Your task to perform on an android device: change keyboard looks Image 0: 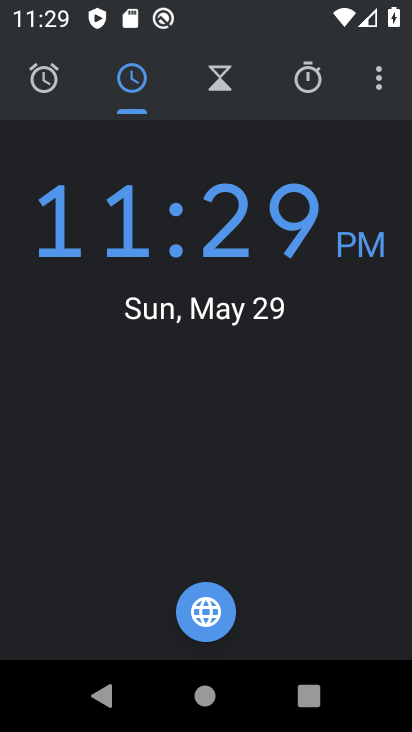
Step 0: press home button
Your task to perform on an android device: change keyboard looks Image 1: 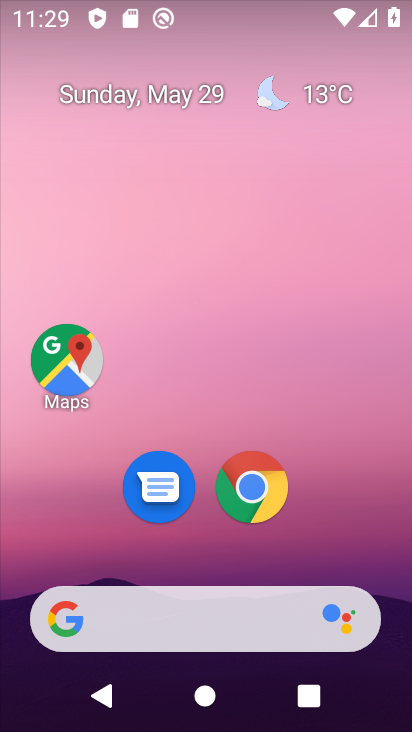
Step 1: drag from (350, 487) to (337, 108)
Your task to perform on an android device: change keyboard looks Image 2: 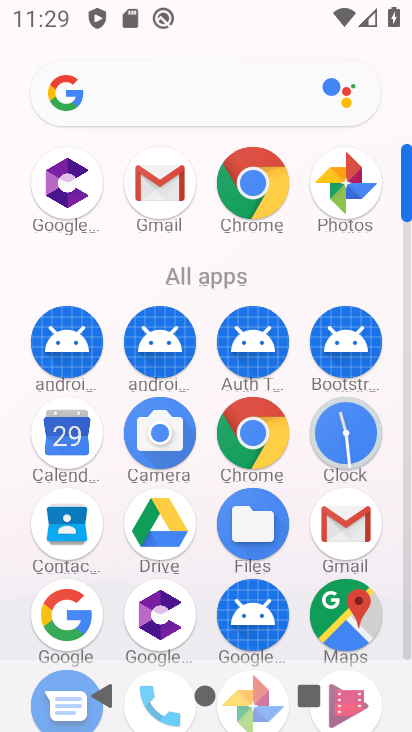
Step 2: drag from (296, 293) to (275, 7)
Your task to perform on an android device: change keyboard looks Image 3: 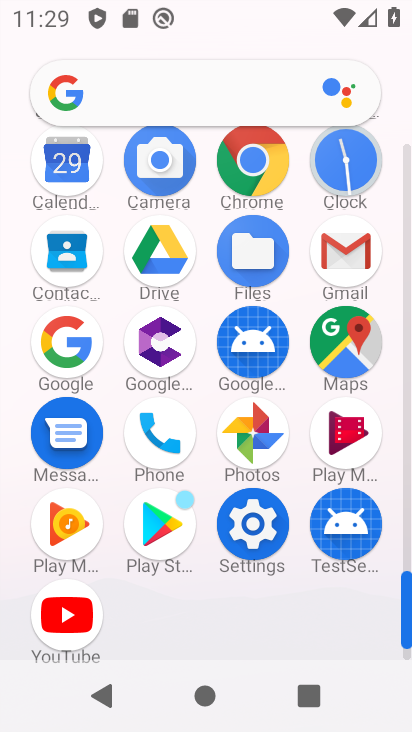
Step 3: click (237, 540)
Your task to perform on an android device: change keyboard looks Image 4: 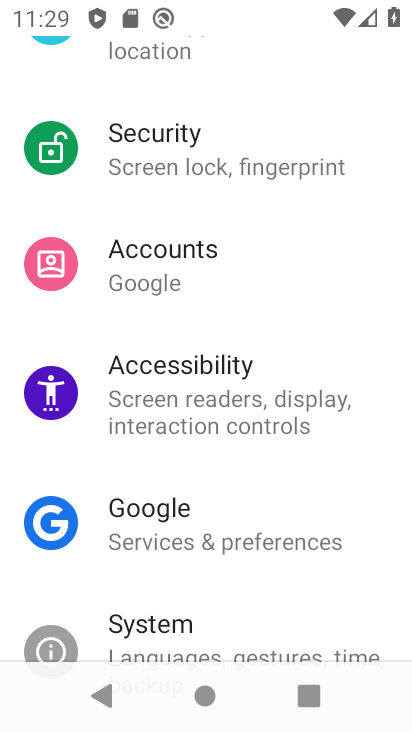
Step 4: drag from (230, 596) to (212, 269)
Your task to perform on an android device: change keyboard looks Image 5: 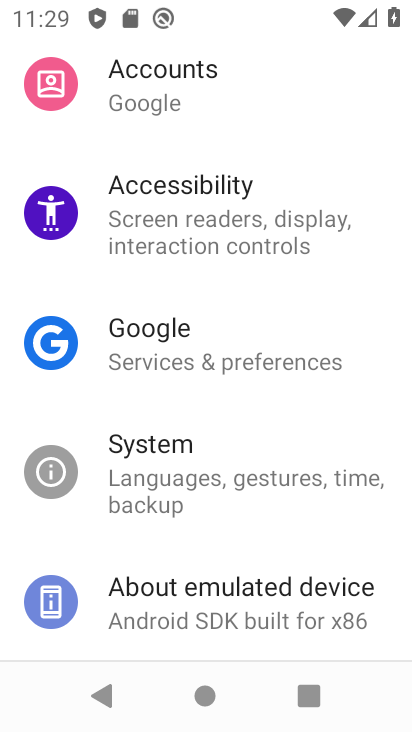
Step 5: click (200, 488)
Your task to perform on an android device: change keyboard looks Image 6: 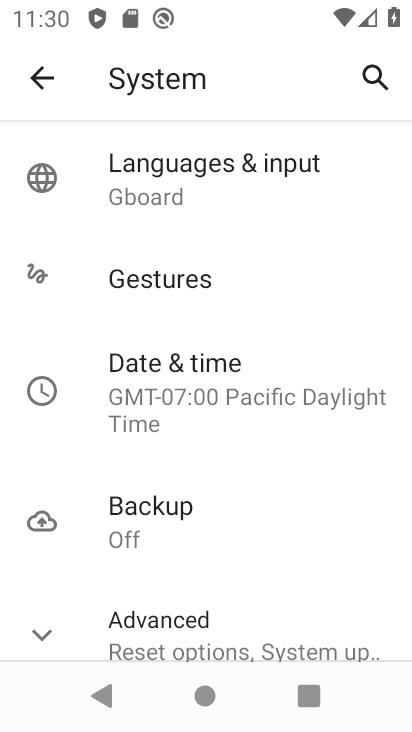
Step 6: click (188, 187)
Your task to perform on an android device: change keyboard looks Image 7: 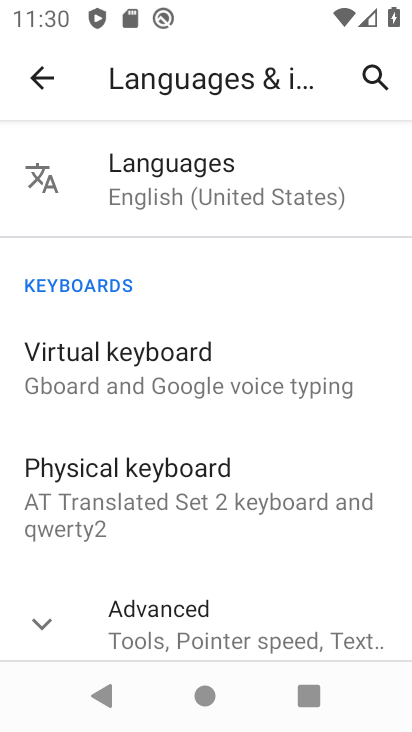
Step 7: click (206, 398)
Your task to perform on an android device: change keyboard looks Image 8: 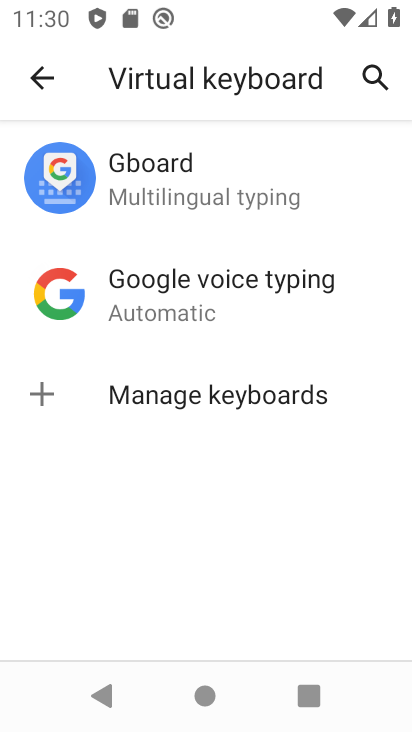
Step 8: click (194, 181)
Your task to perform on an android device: change keyboard looks Image 9: 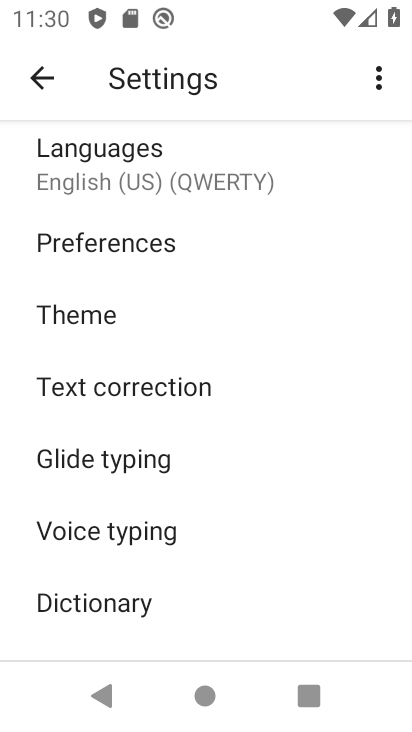
Step 9: click (147, 303)
Your task to perform on an android device: change keyboard looks Image 10: 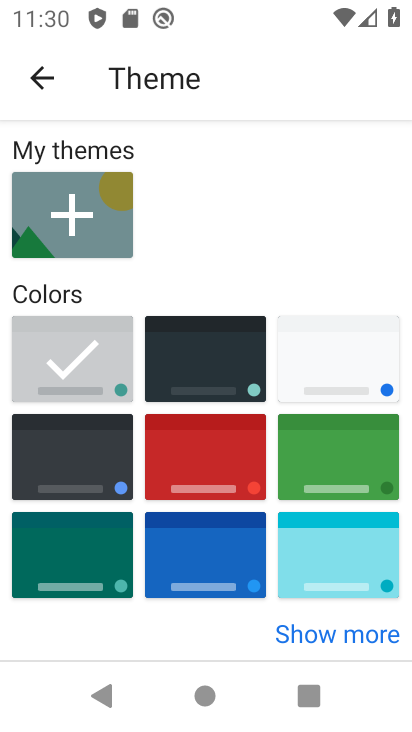
Step 10: click (212, 449)
Your task to perform on an android device: change keyboard looks Image 11: 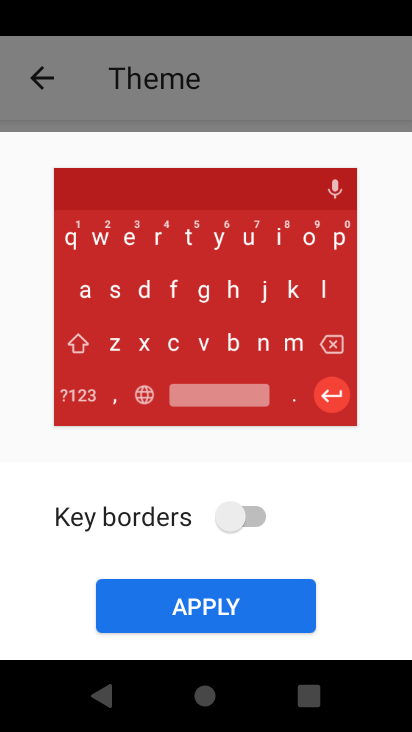
Step 11: click (197, 618)
Your task to perform on an android device: change keyboard looks Image 12: 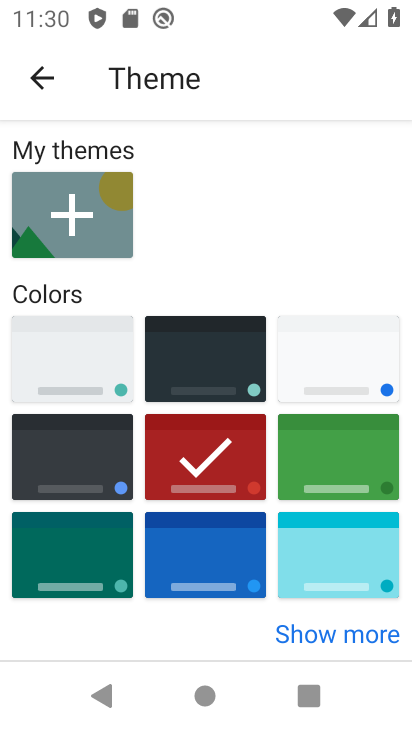
Step 12: task complete